Your task to perform on an android device: open device folders in google photos Image 0: 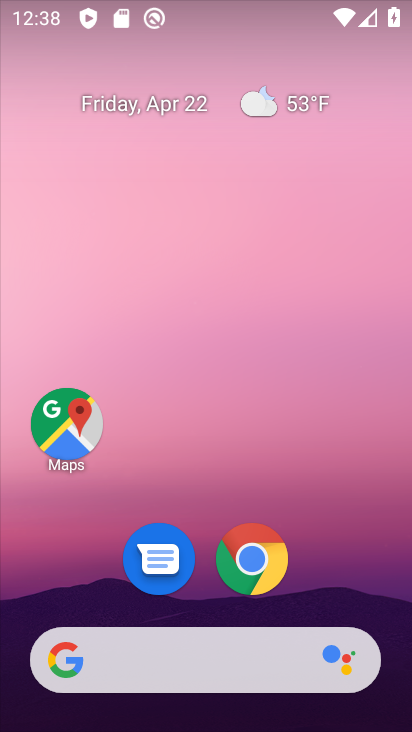
Step 0: press home button
Your task to perform on an android device: open device folders in google photos Image 1: 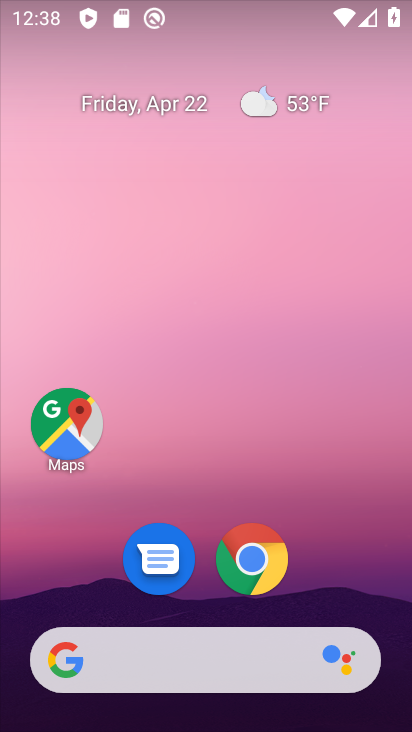
Step 1: drag from (210, 688) to (207, 106)
Your task to perform on an android device: open device folders in google photos Image 2: 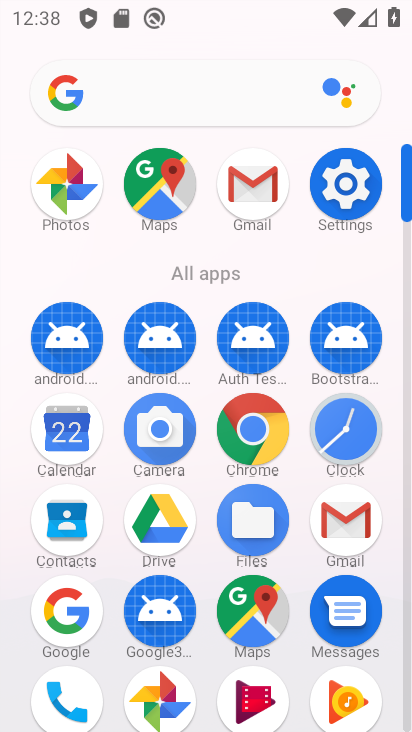
Step 2: click (67, 181)
Your task to perform on an android device: open device folders in google photos Image 3: 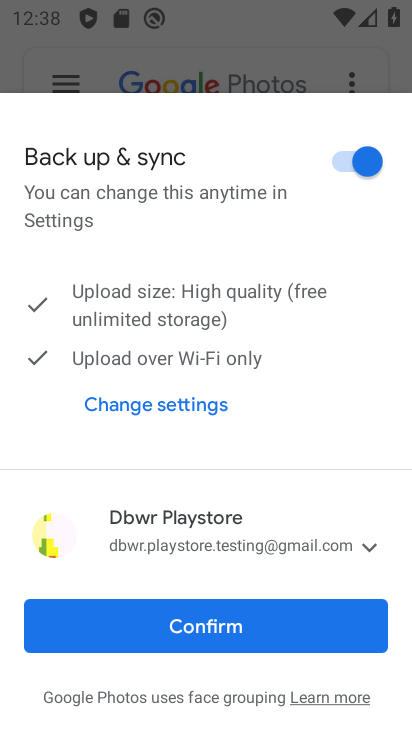
Step 3: click (198, 615)
Your task to perform on an android device: open device folders in google photos Image 4: 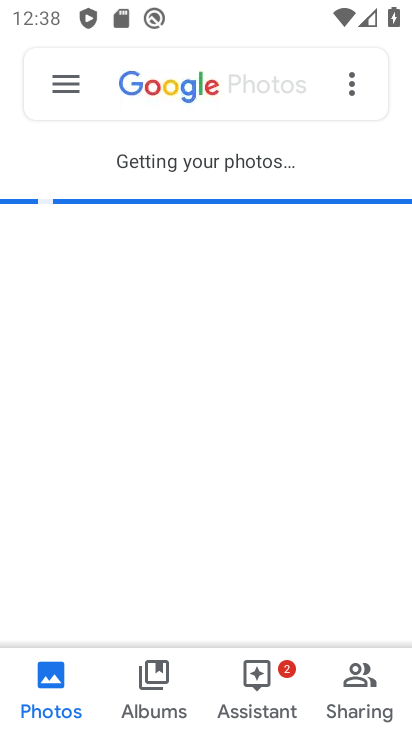
Step 4: click (68, 83)
Your task to perform on an android device: open device folders in google photos Image 5: 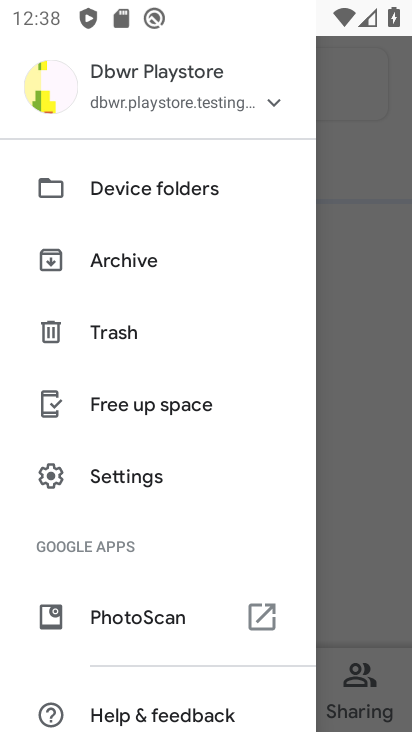
Step 5: click (150, 183)
Your task to perform on an android device: open device folders in google photos Image 6: 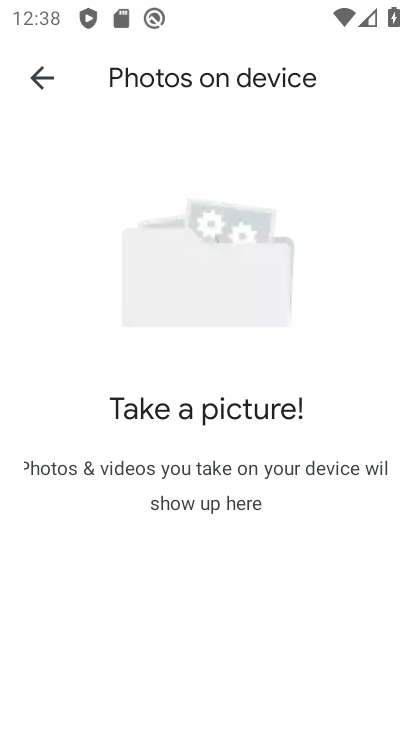
Step 6: task complete